Your task to perform on an android device: Open internet settings Image 0: 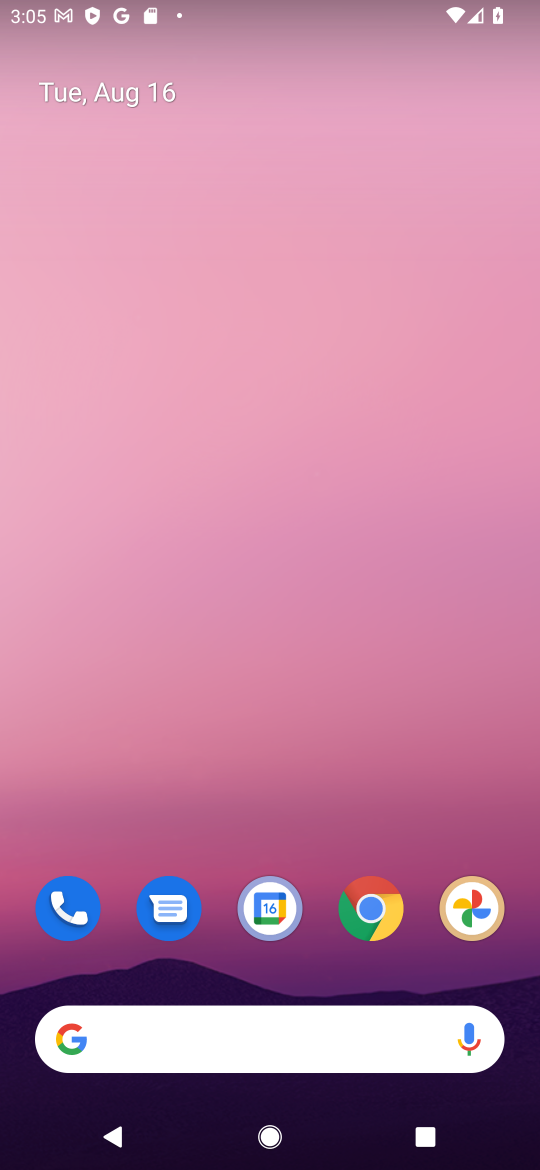
Step 0: drag from (243, 981) to (350, 109)
Your task to perform on an android device: Open internet settings Image 1: 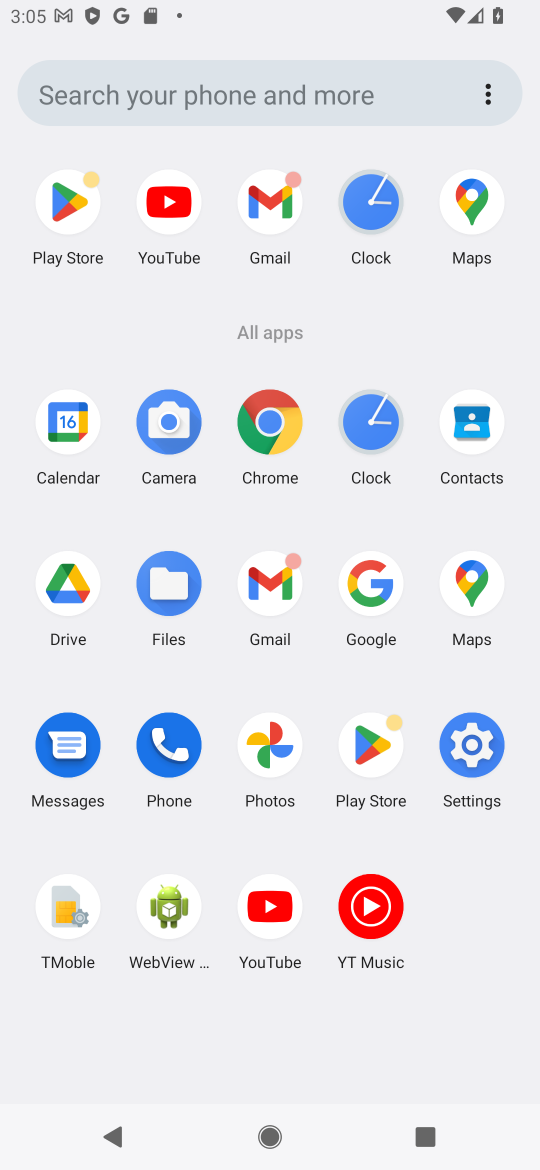
Step 1: click (478, 740)
Your task to perform on an android device: Open internet settings Image 2: 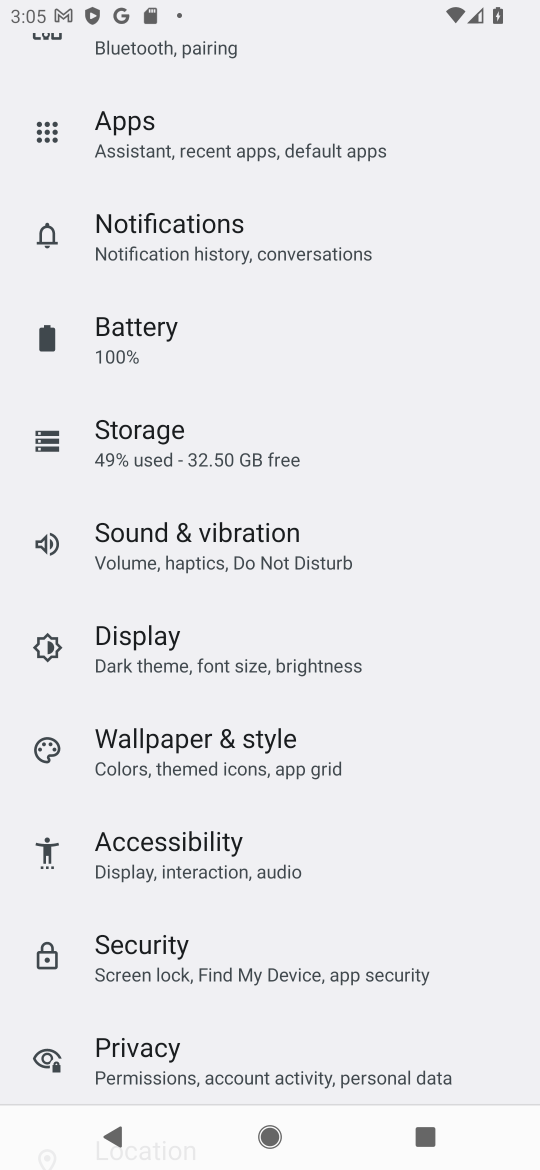
Step 2: drag from (294, 245) to (298, 1067)
Your task to perform on an android device: Open internet settings Image 3: 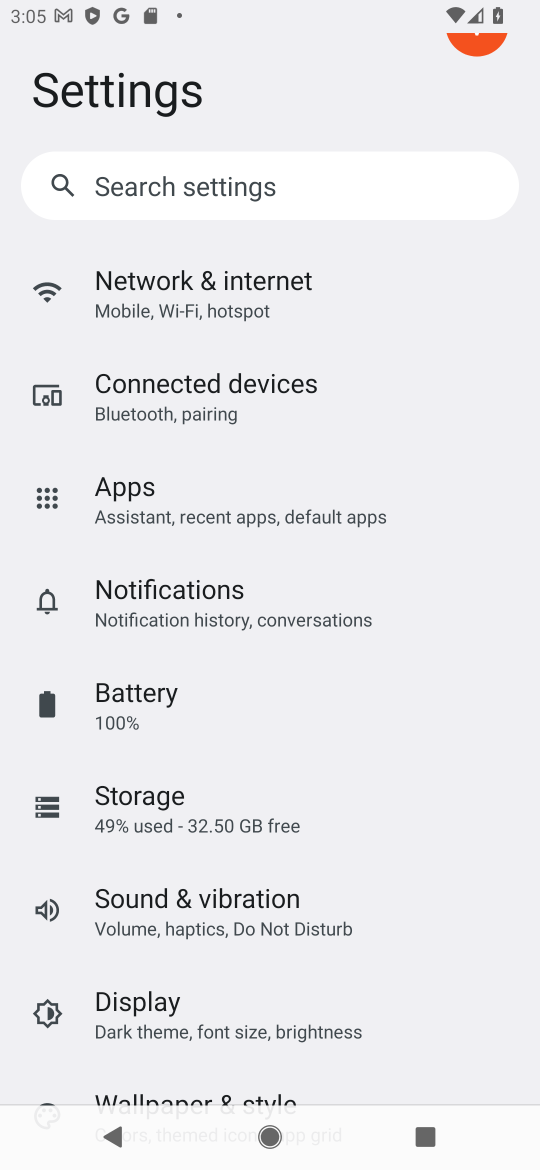
Step 3: click (229, 300)
Your task to perform on an android device: Open internet settings Image 4: 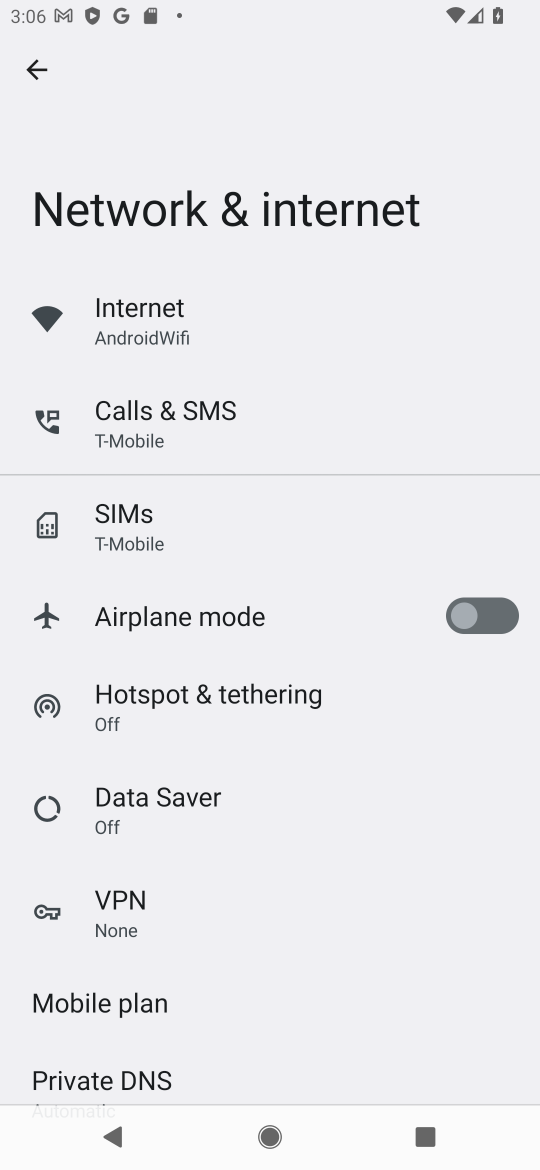
Step 4: task complete